Your task to perform on an android device: toggle airplane mode Image 0: 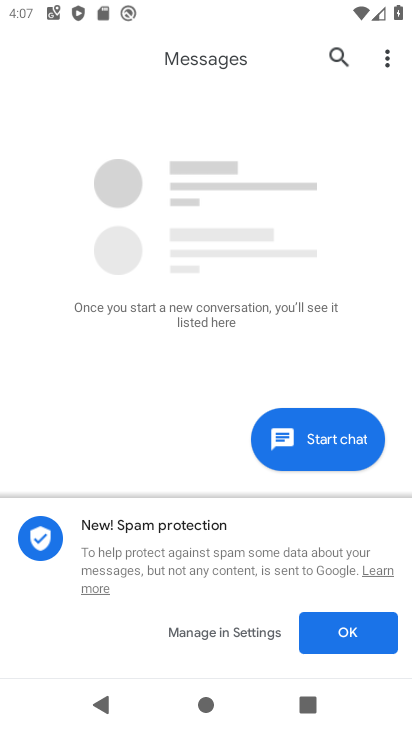
Step 0: press home button
Your task to perform on an android device: toggle airplane mode Image 1: 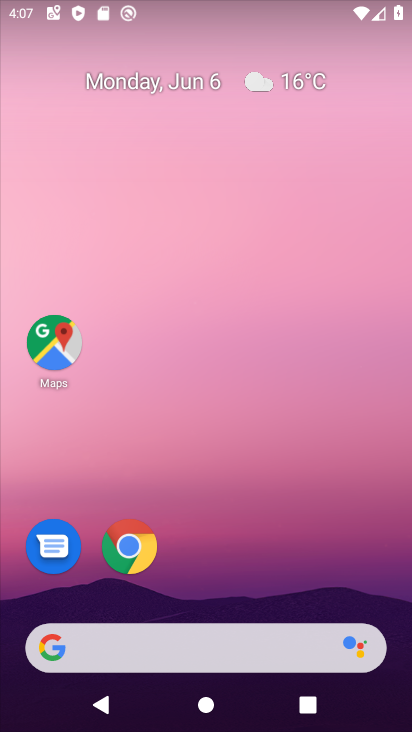
Step 1: drag from (300, 569) to (311, 47)
Your task to perform on an android device: toggle airplane mode Image 2: 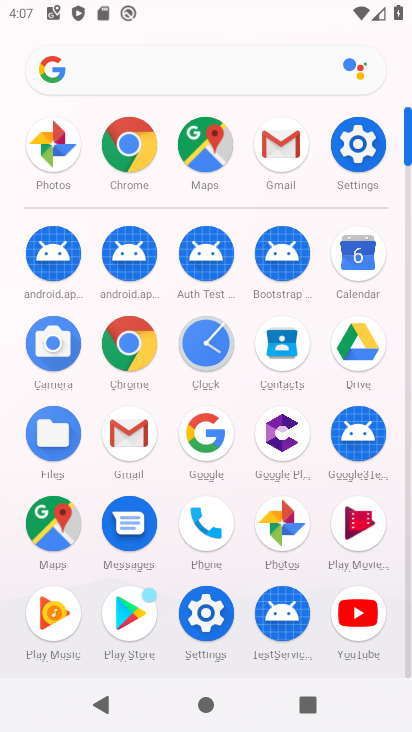
Step 2: click (362, 130)
Your task to perform on an android device: toggle airplane mode Image 3: 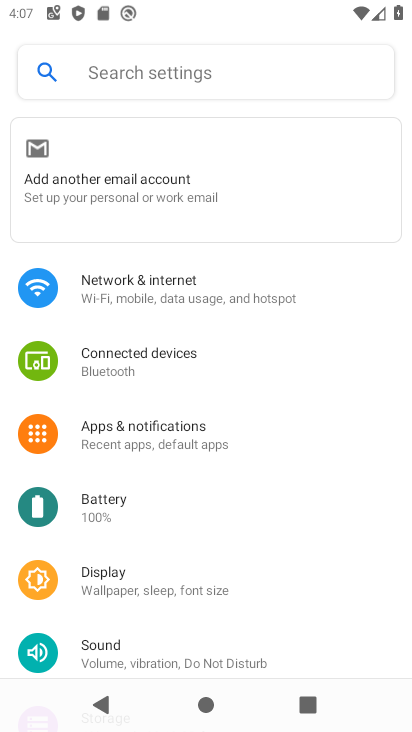
Step 3: click (176, 285)
Your task to perform on an android device: toggle airplane mode Image 4: 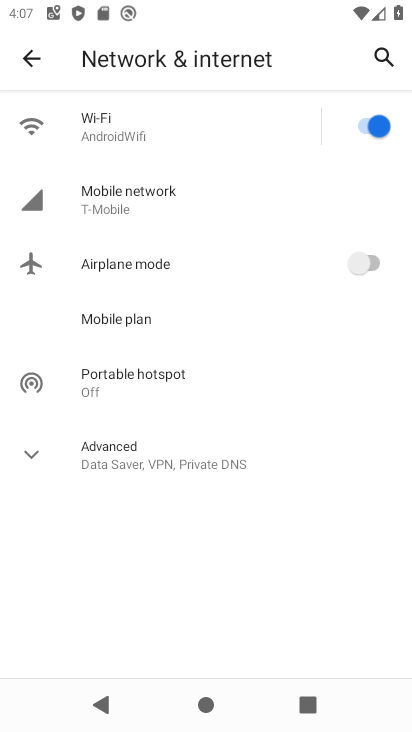
Step 4: click (357, 267)
Your task to perform on an android device: toggle airplane mode Image 5: 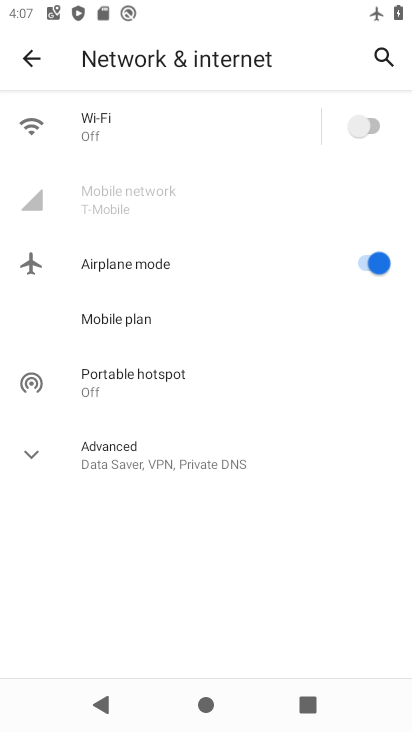
Step 5: task complete